Your task to perform on an android device: open a new tab in the chrome app Image 0: 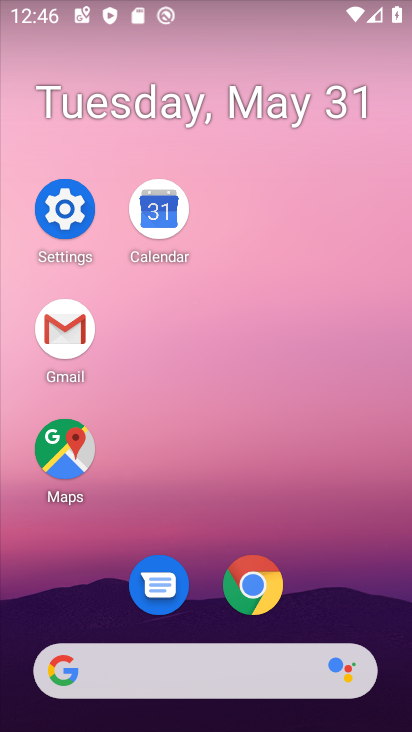
Step 0: click (285, 594)
Your task to perform on an android device: open a new tab in the chrome app Image 1: 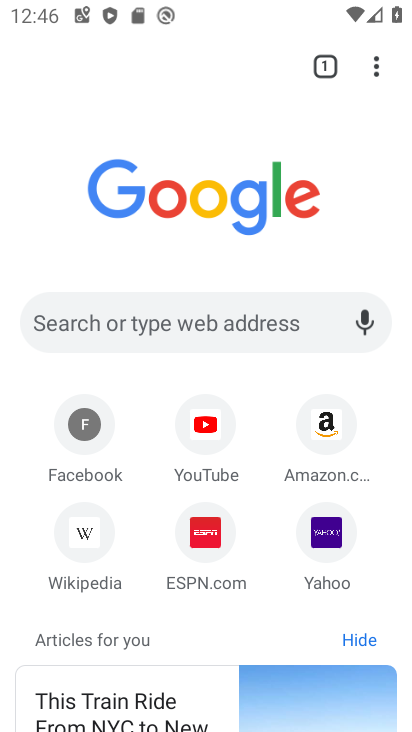
Step 1: click (325, 68)
Your task to perform on an android device: open a new tab in the chrome app Image 2: 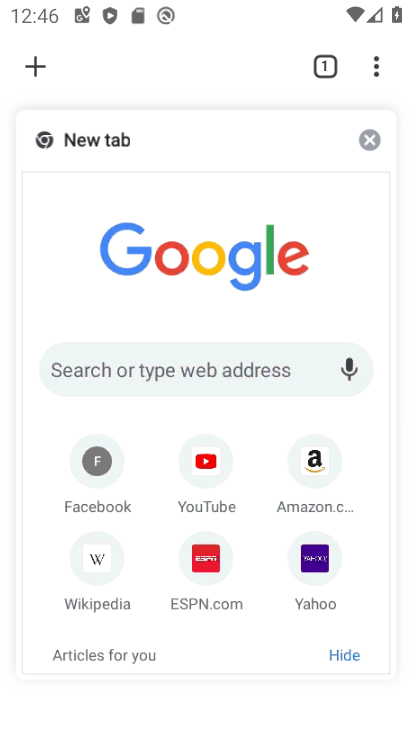
Step 2: click (40, 68)
Your task to perform on an android device: open a new tab in the chrome app Image 3: 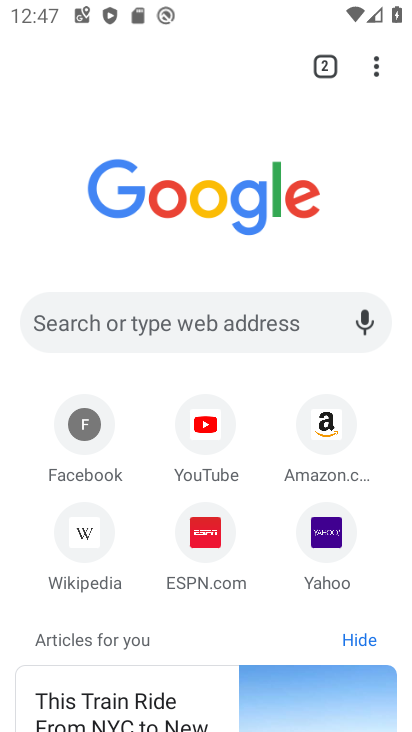
Step 3: task complete